Your task to perform on an android device: open app "DoorDash - Food Delivery" Image 0: 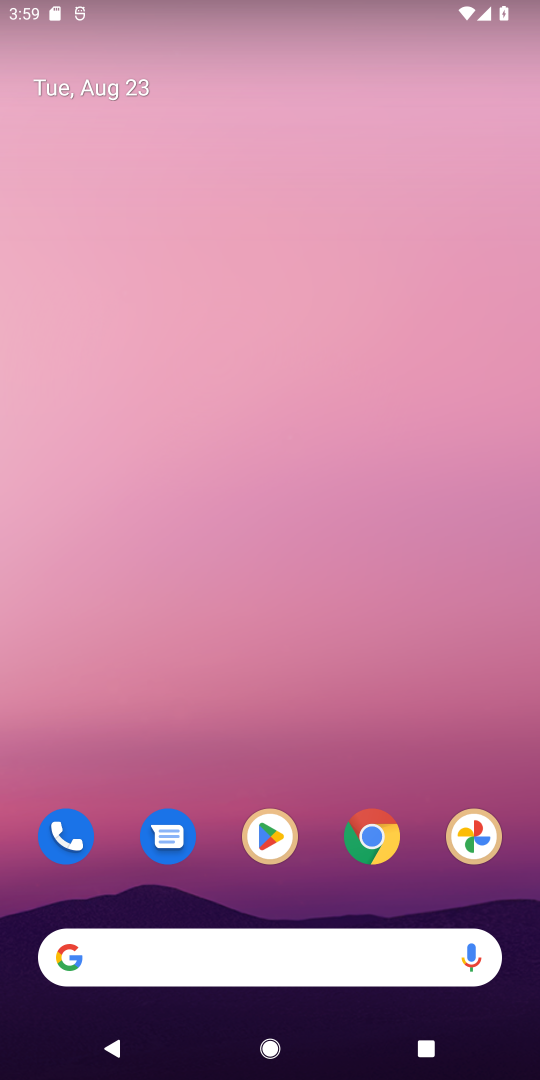
Step 0: click (271, 830)
Your task to perform on an android device: open app "DoorDash - Food Delivery" Image 1: 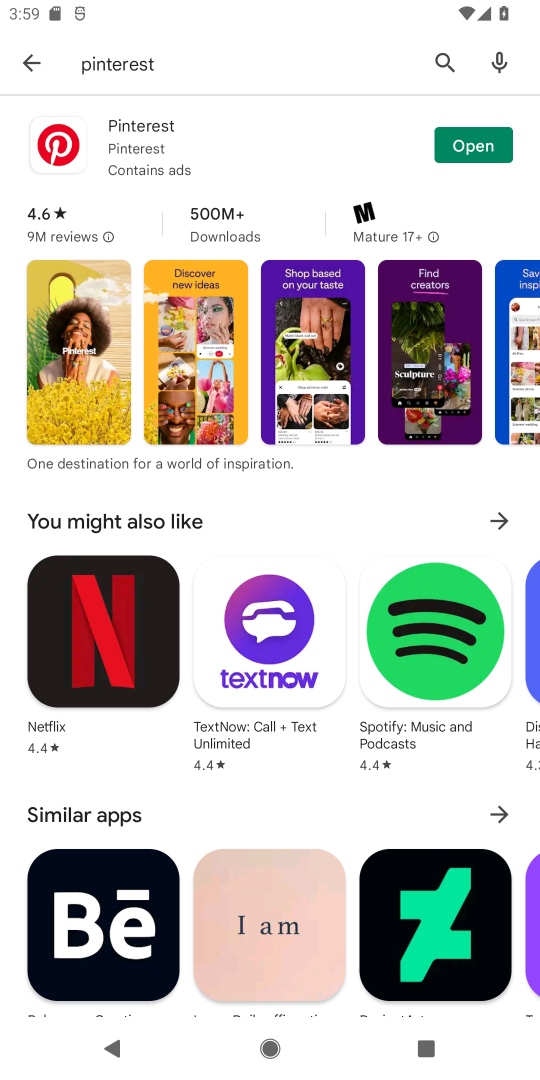
Step 1: click (442, 63)
Your task to perform on an android device: open app "DoorDash - Food Delivery" Image 2: 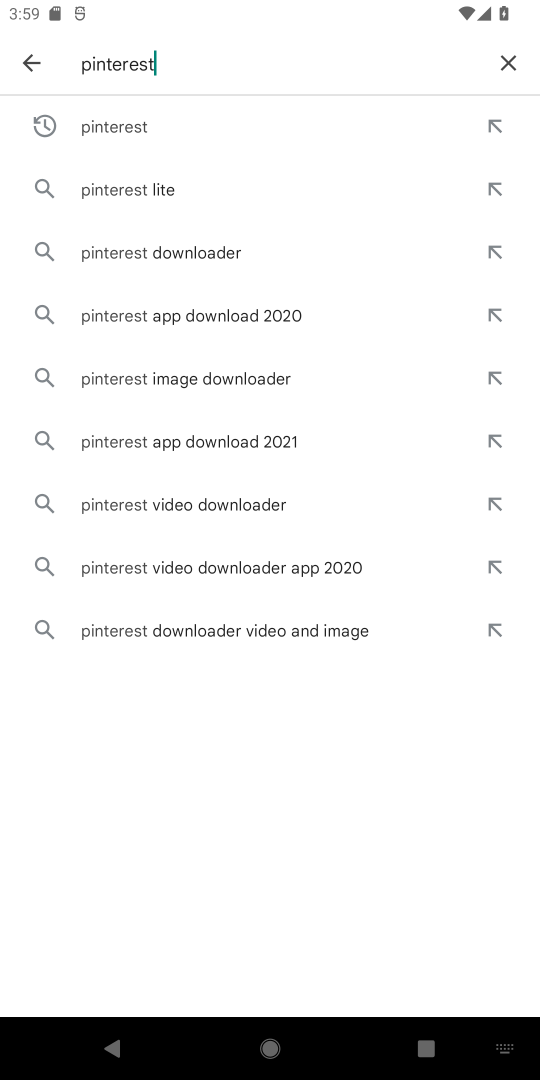
Step 2: click (502, 62)
Your task to perform on an android device: open app "DoorDash - Food Delivery" Image 3: 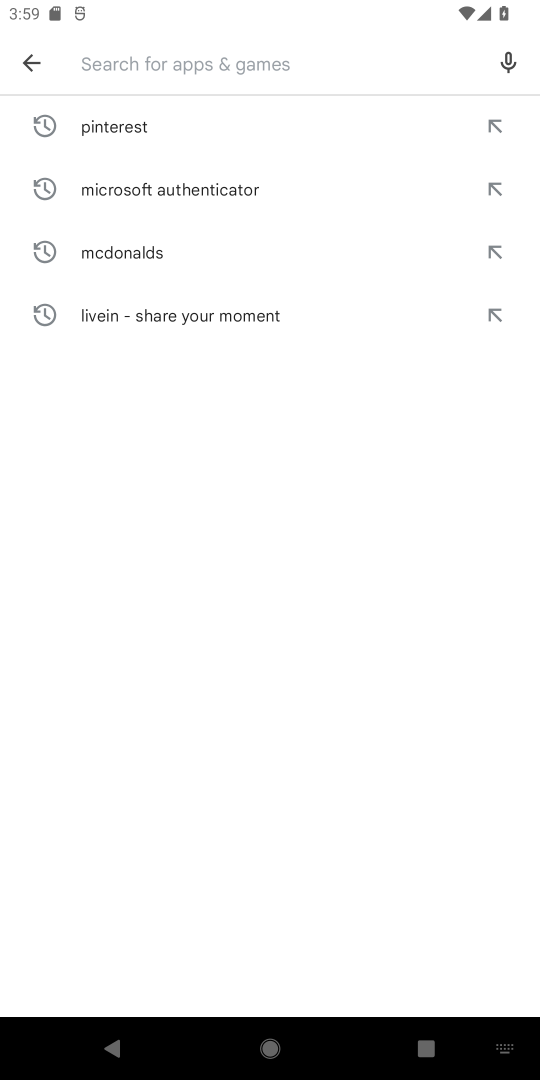
Step 3: type "DoorDash - Food Delivery"
Your task to perform on an android device: open app "DoorDash - Food Delivery" Image 4: 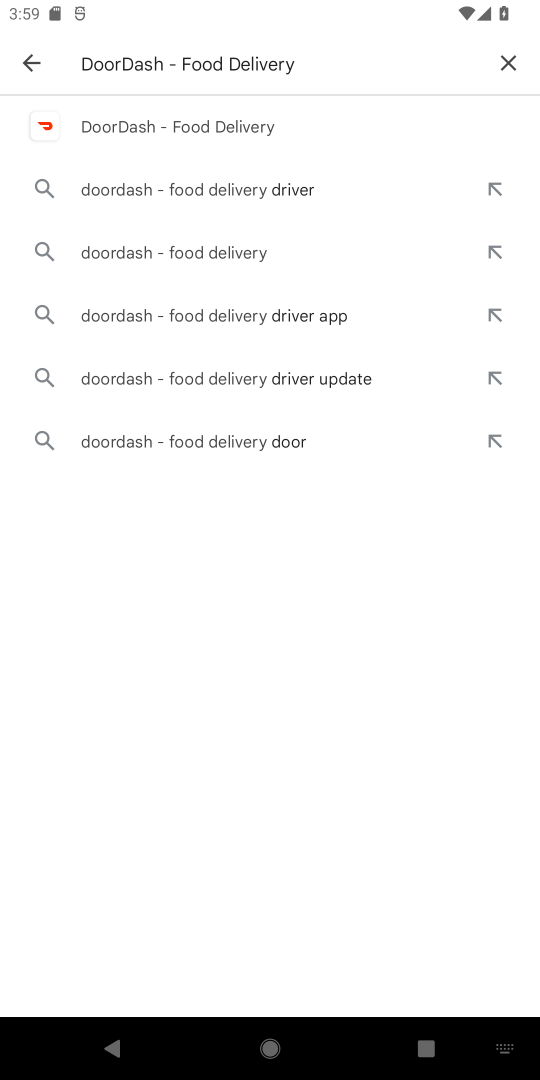
Step 4: click (128, 124)
Your task to perform on an android device: open app "DoorDash - Food Delivery" Image 5: 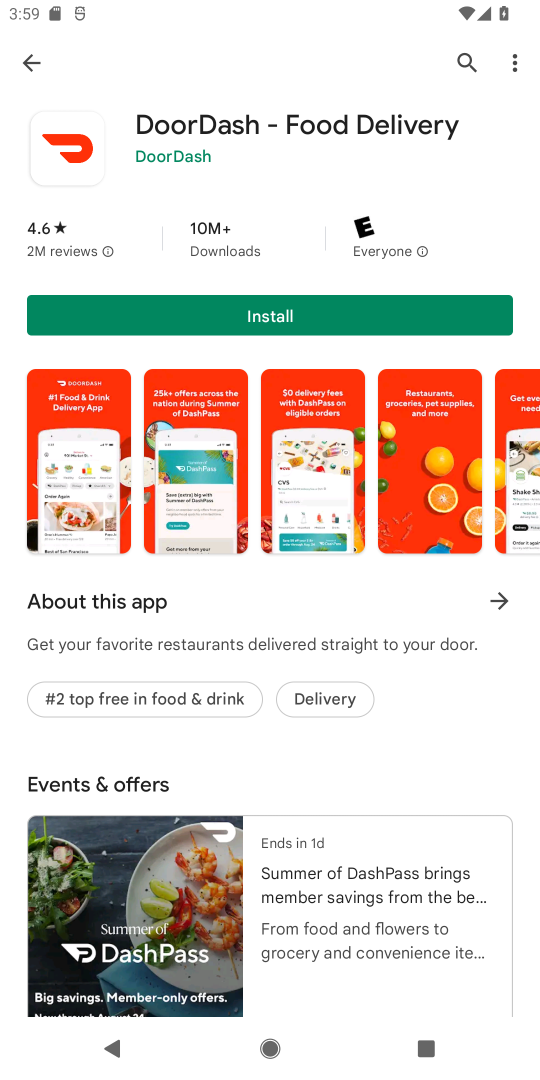
Step 5: task complete